Your task to perform on an android device: Open calendar and show me the fourth week of next month Image 0: 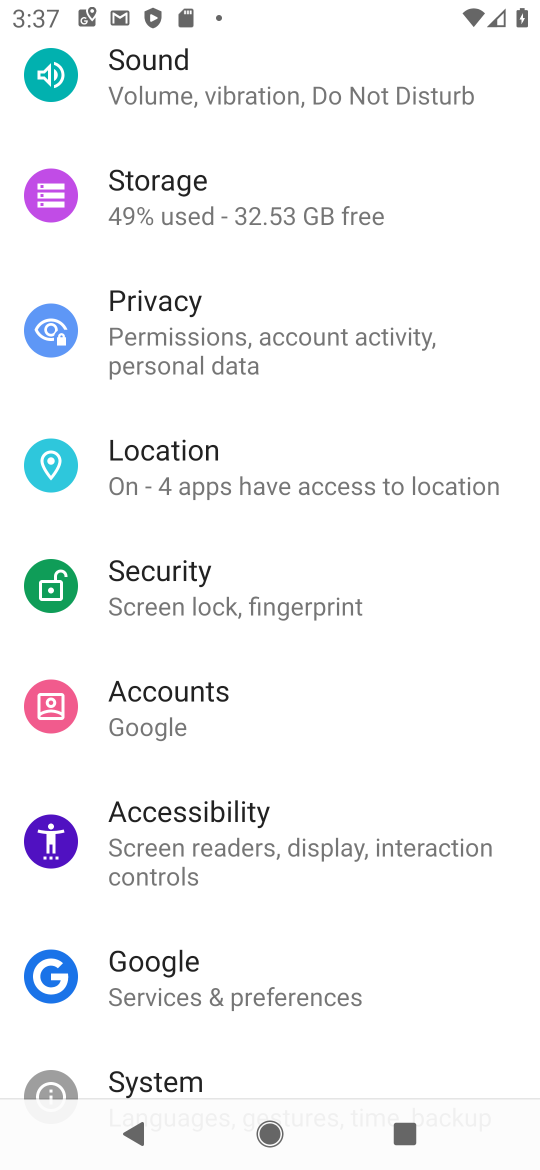
Step 0: press home button
Your task to perform on an android device: Open calendar and show me the fourth week of next month Image 1: 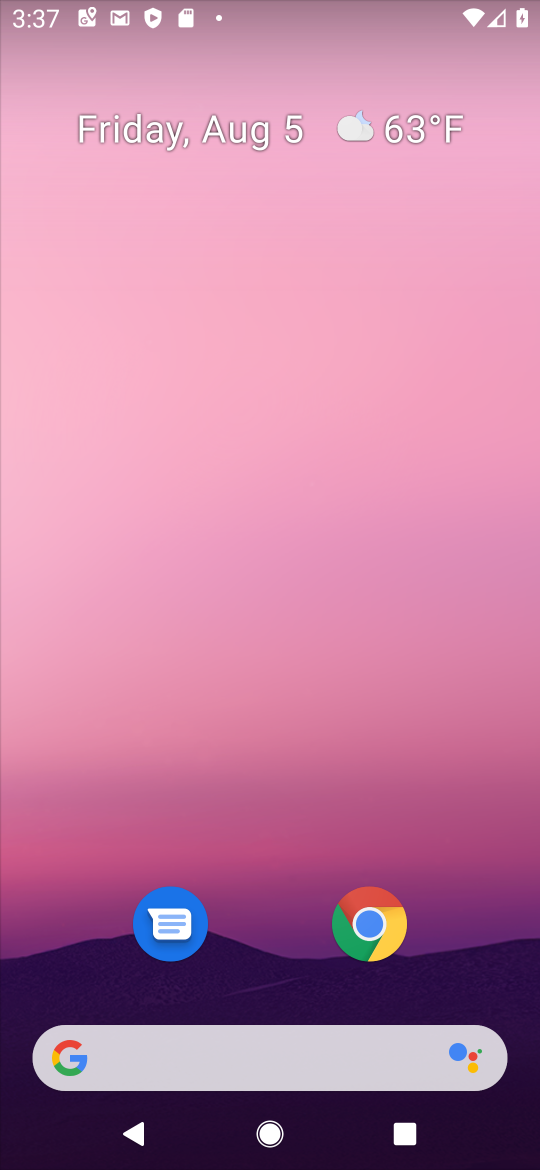
Step 1: press home button
Your task to perform on an android device: Open calendar and show me the fourth week of next month Image 2: 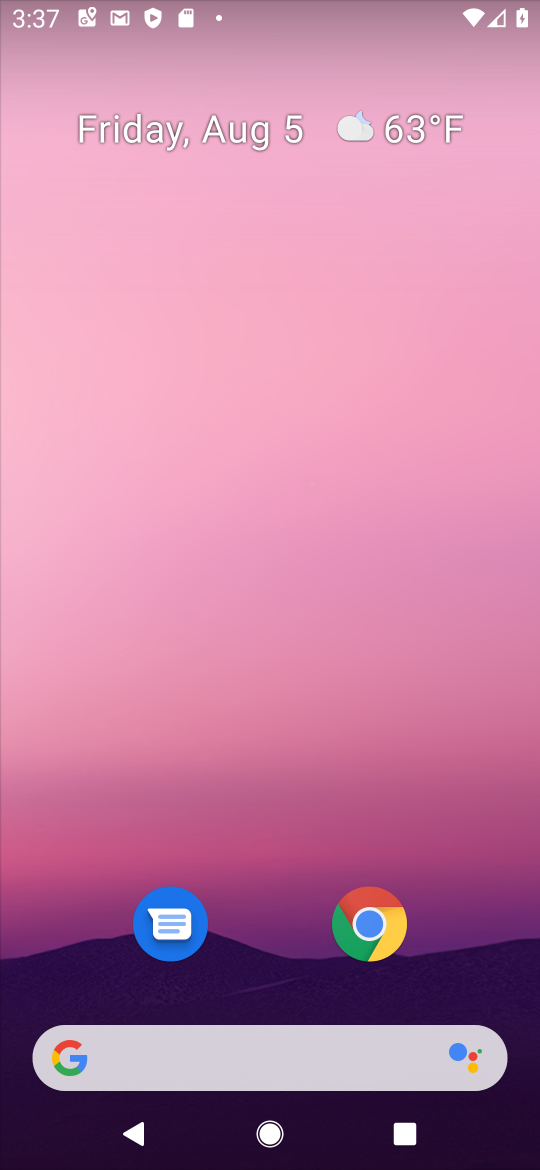
Step 2: drag from (257, 952) to (0, 48)
Your task to perform on an android device: Open calendar and show me the fourth week of next month Image 3: 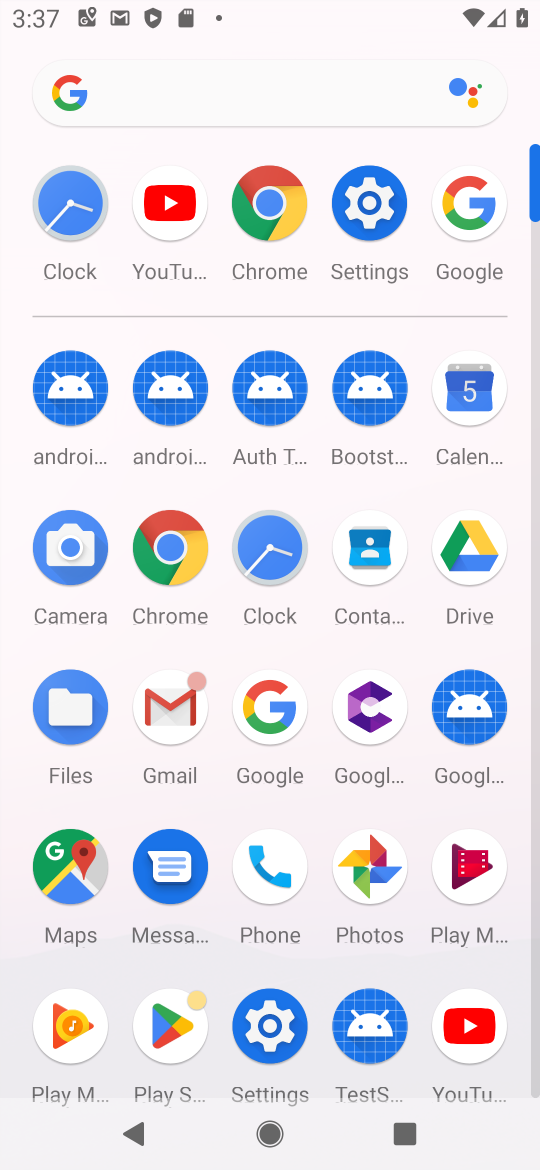
Step 3: click (462, 389)
Your task to perform on an android device: Open calendar and show me the fourth week of next month Image 4: 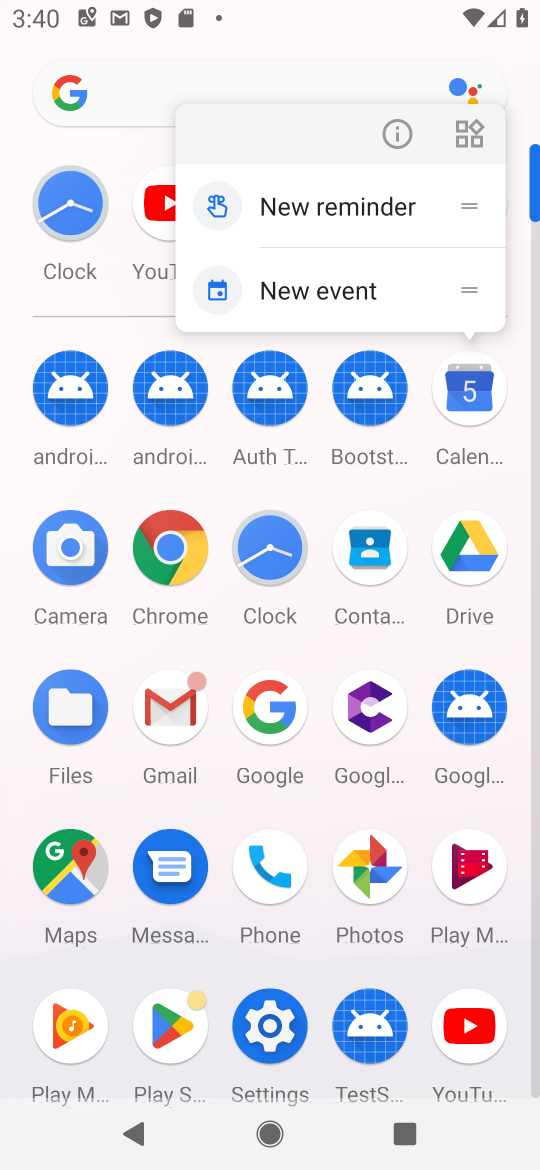
Step 4: click (464, 423)
Your task to perform on an android device: Open calendar and show me the fourth week of next month Image 5: 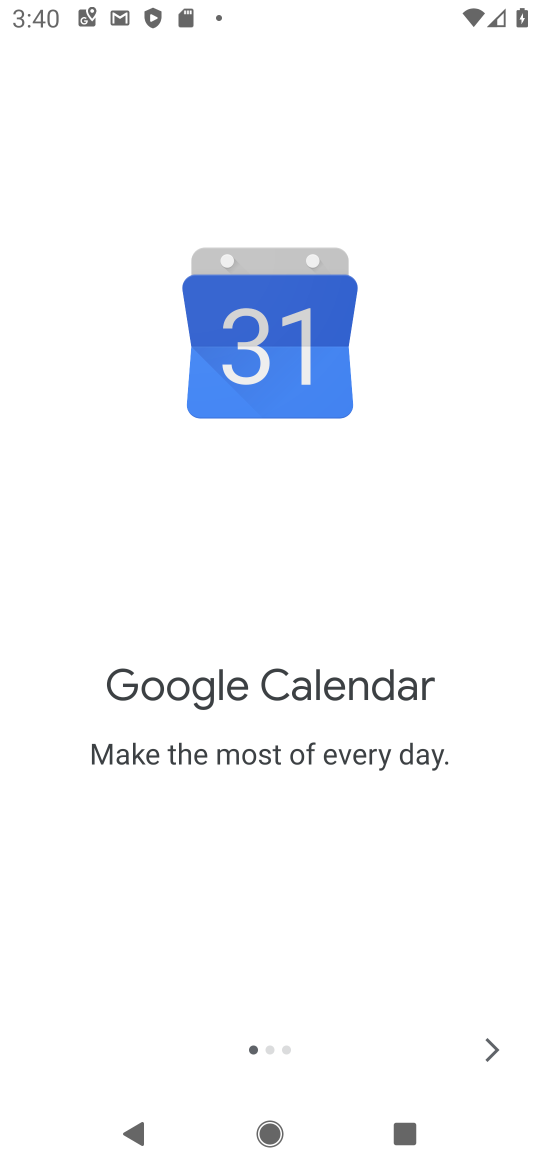
Step 5: click (492, 1057)
Your task to perform on an android device: Open calendar and show me the fourth week of next month Image 6: 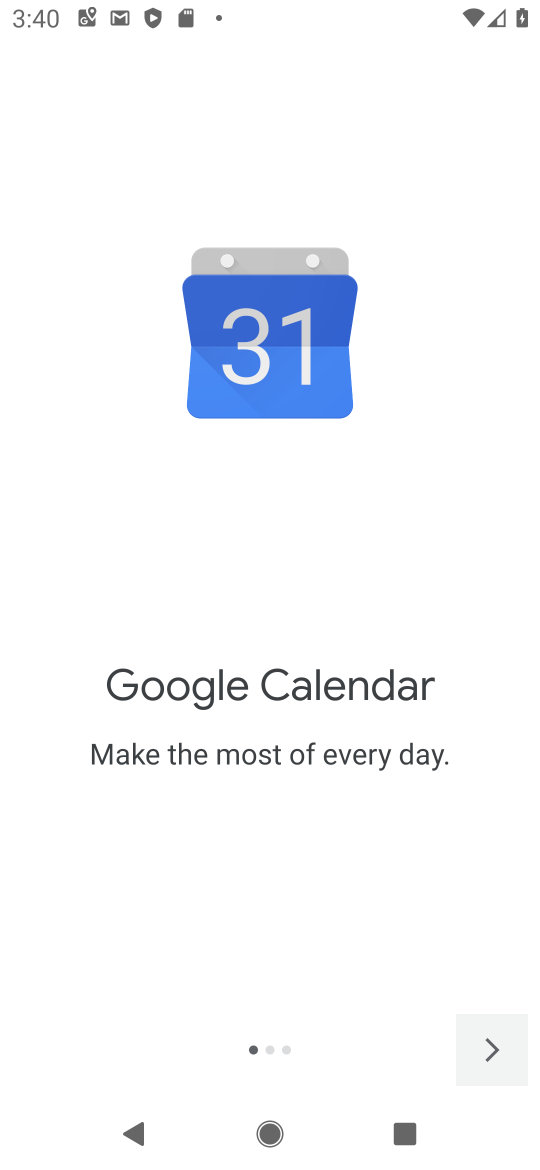
Step 6: click (492, 1057)
Your task to perform on an android device: Open calendar and show me the fourth week of next month Image 7: 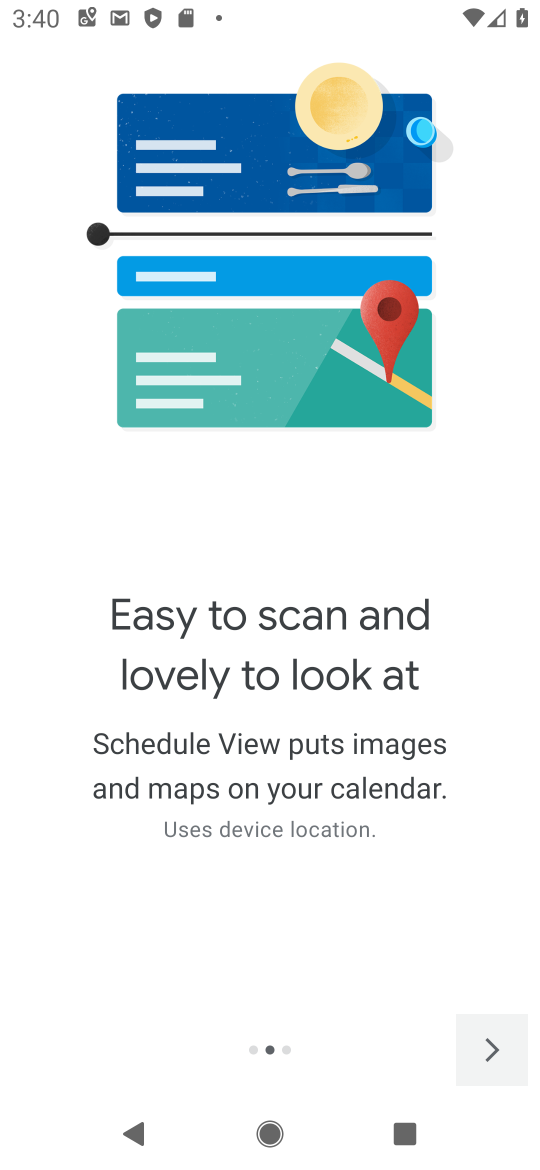
Step 7: click (490, 1056)
Your task to perform on an android device: Open calendar and show me the fourth week of next month Image 8: 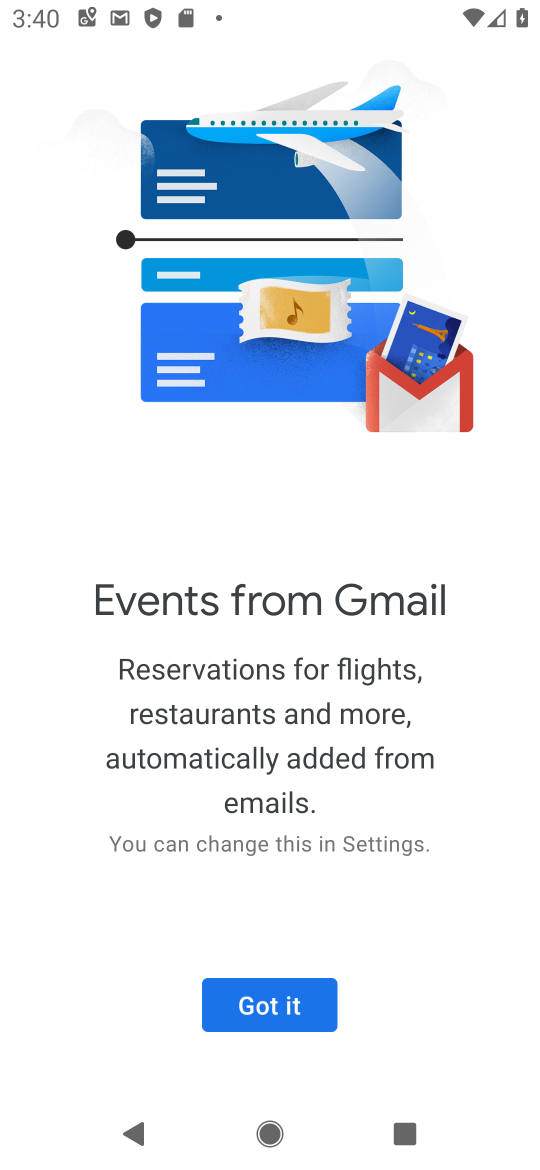
Step 8: click (258, 1009)
Your task to perform on an android device: Open calendar and show me the fourth week of next month Image 9: 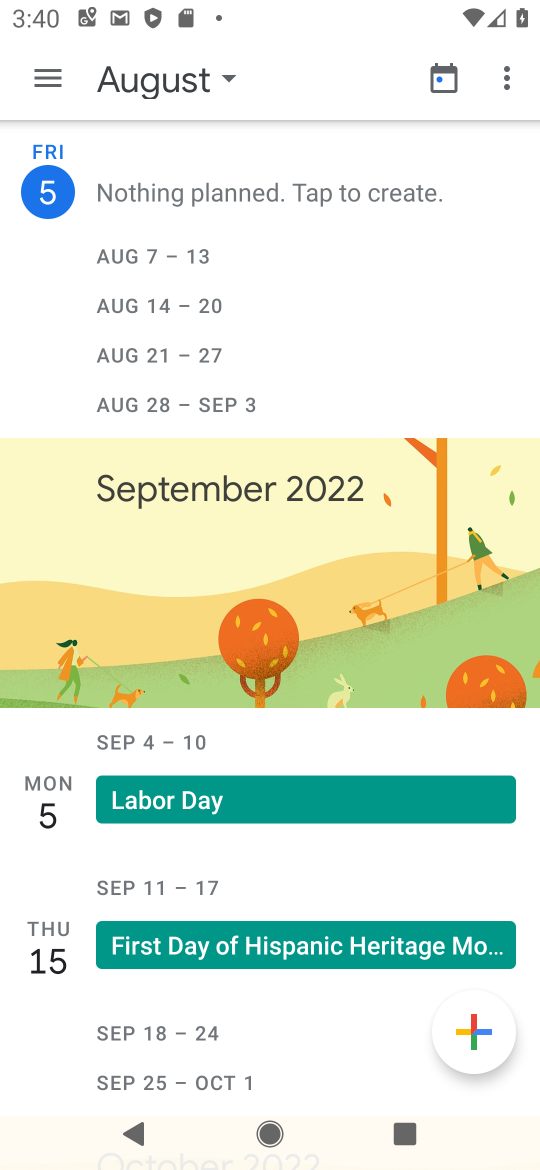
Step 9: click (182, 73)
Your task to perform on an android device: Open calendar and show me the fourth week of next month Image 10: 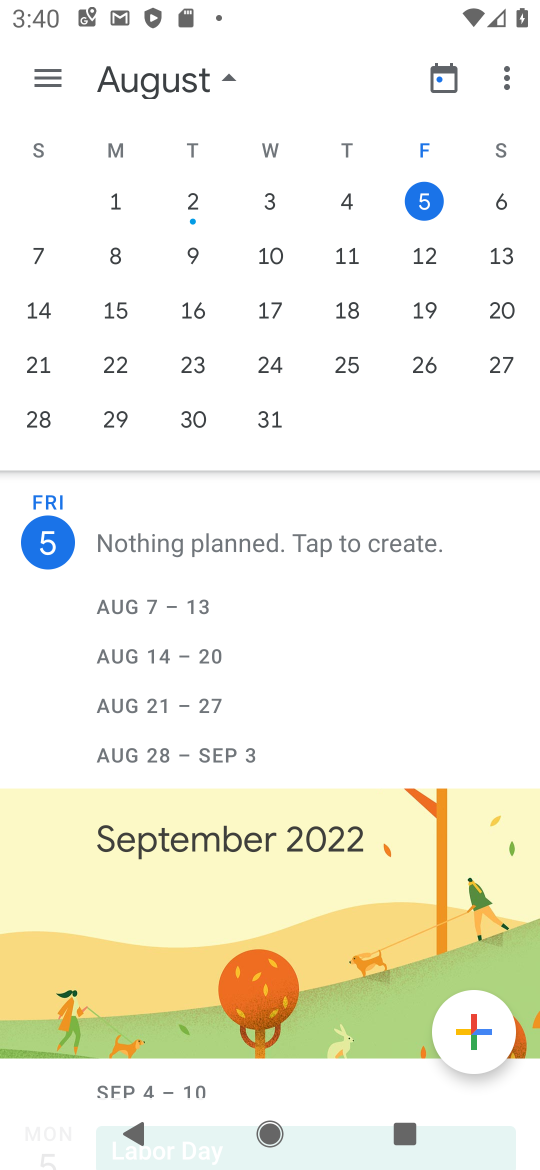
Step 10: drag from (400, 267) to (3, 242)
Your task to perform on an android device: Open calendar and show me the fourth week of next month Image 11: 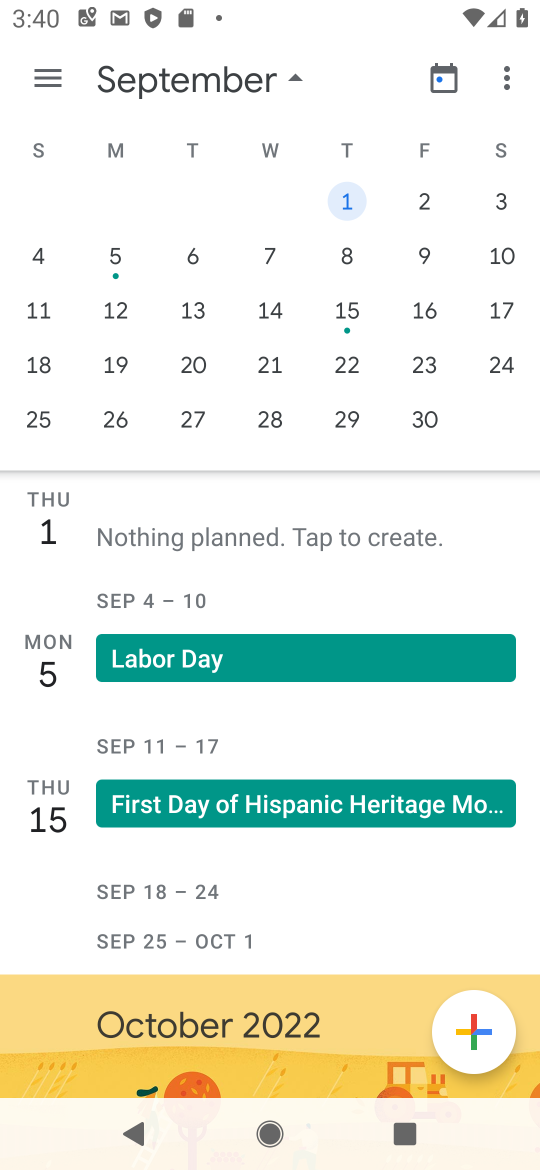
Step 11: click (47, 368)
Your task to perform on an android device: Open calendar and show me the fourth week of next month Image 12: 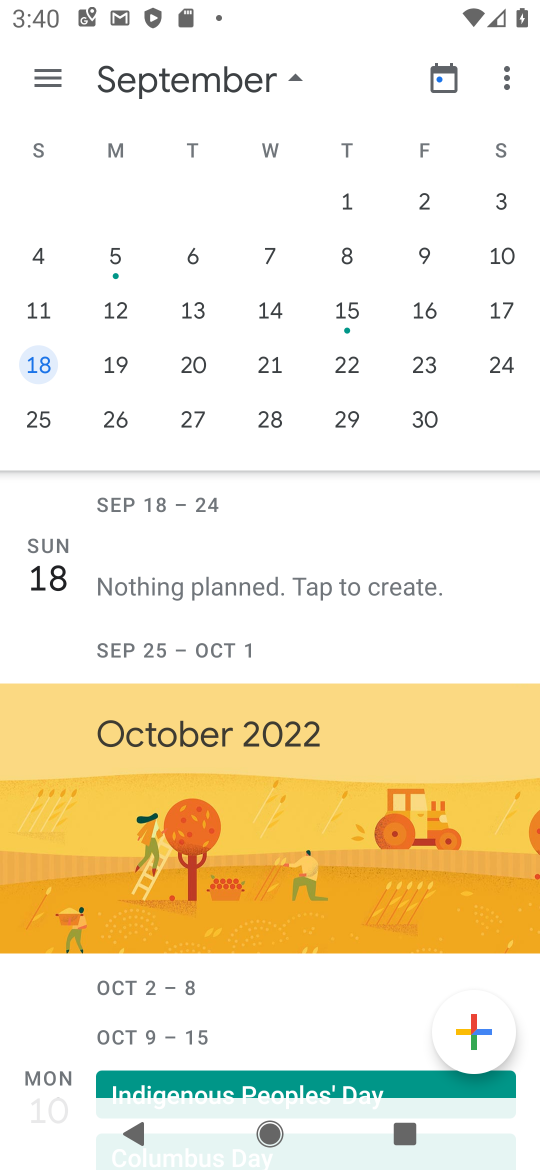
Step 12: click (282, 88)
Your task to perform on an android device: Open calendar and show me the fourth week of next month Image 13: 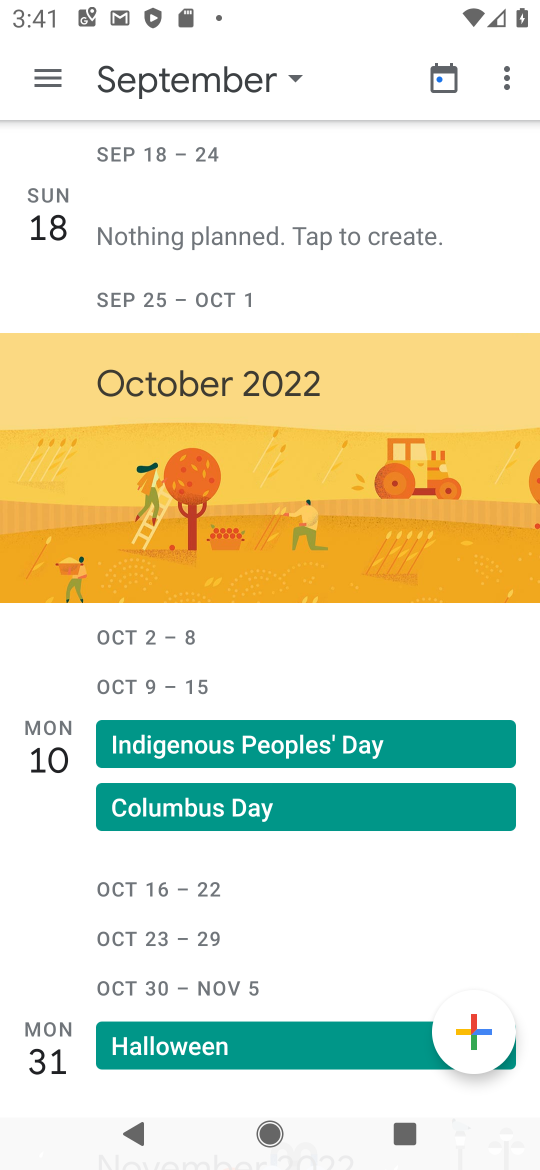
Step 13: task complete